Your task to perform on an android device: Find coffee shops on Maps Image 0: 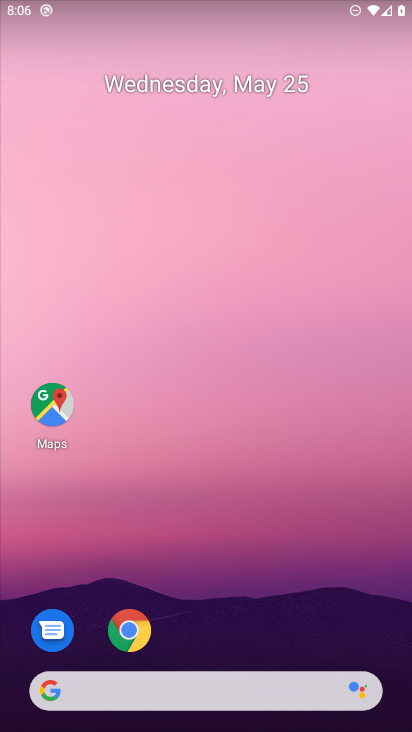
Step 0: drag from (177, 680) to (216, 320)
Your task to perform on an android device: Find coffee shops on Maps Image 1: 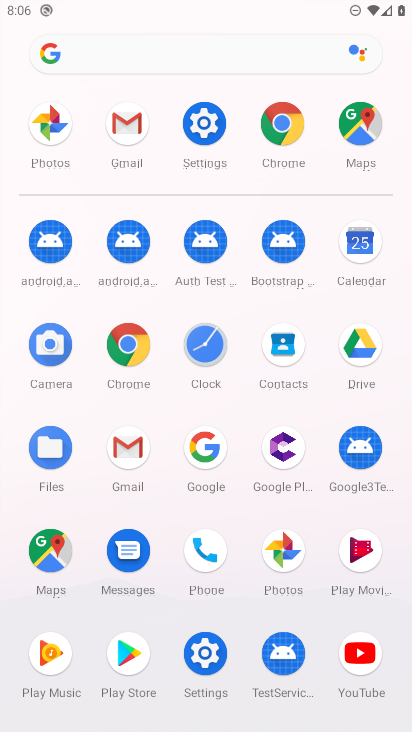
Step 1: click (49, 555)
Your task to perform on an android device: Find coffee shops on Maps Image 2: 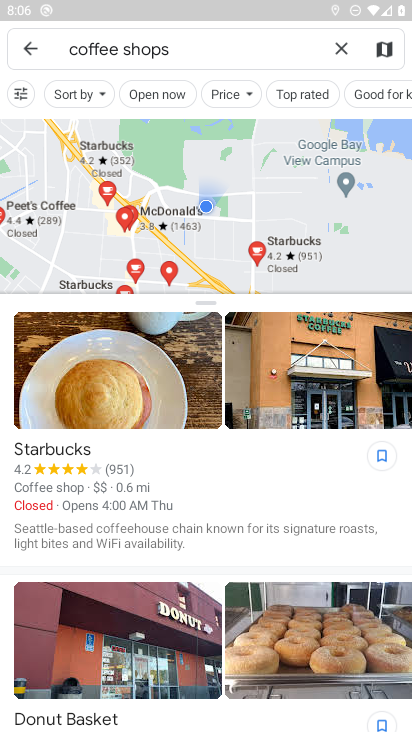
Step 2: task complete